Your task to perform on an android device: Search for sushi restaurants on Maps Image 0: 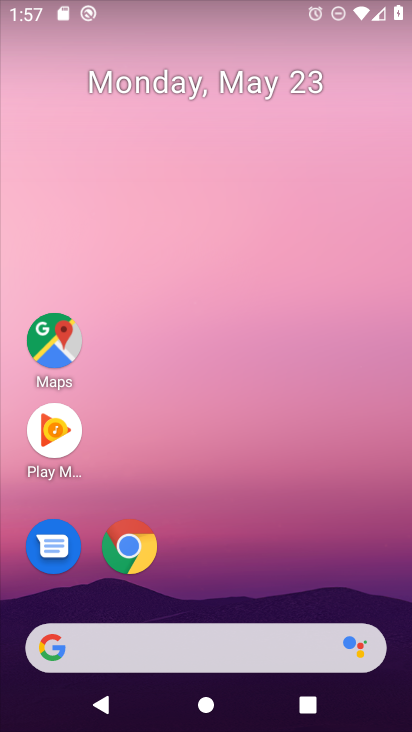
Step 0: drag from (198, 631) to (251, 92)
Your task to perform on an android device: Search for sushi restaurants on Maps Image 1: 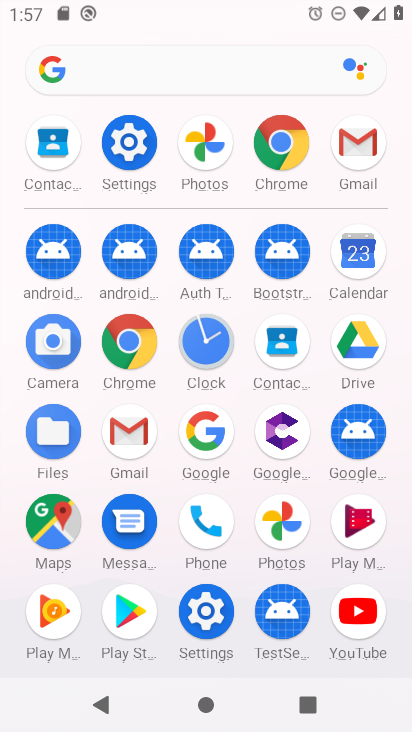
Step 1: click (57, 531)
Your task to perform on an android device: Search for sushi restaurants on Maps Image 2: 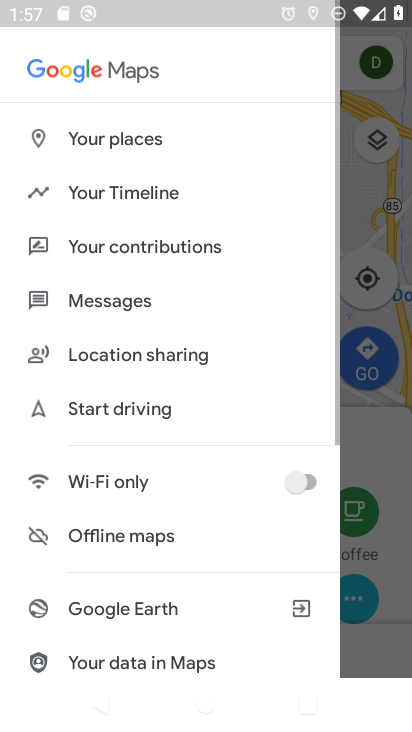
Step 2: click (379, 519)
Your task to perform on an android device: Search for sushi restaurants on Maps Image 3: 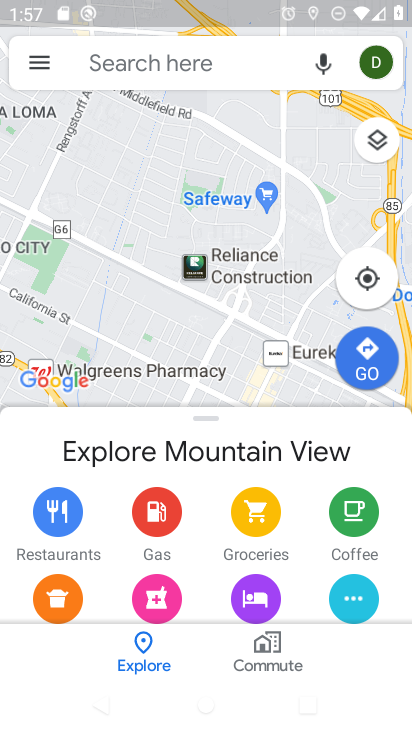
Step 3: click (184, 89)
Your task to perform on an android device: Search for sushi restaurants on Maps Image 4: 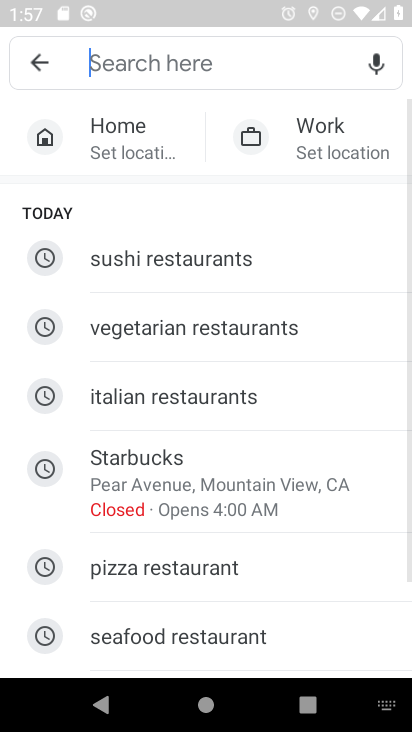
Step 4: click (229, 252)
Your task to perform on an android device: Search for sushi restaurants on Maps Image 5: 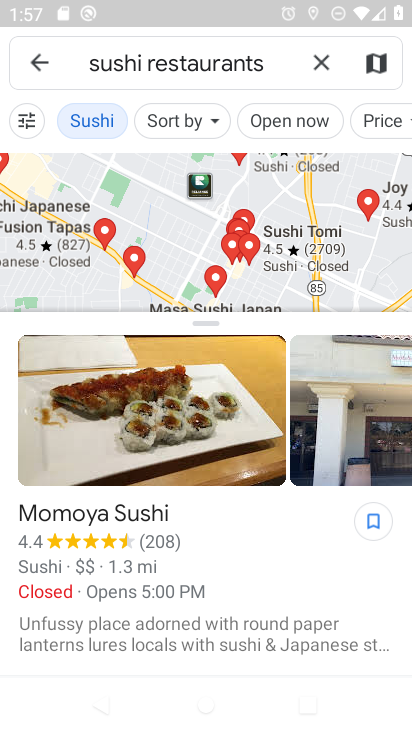
Step 5: task complete